Your task to perform on an android device: View the shopping cart on target.com. Add "macbook pro" to the cart on target.com Image 0: 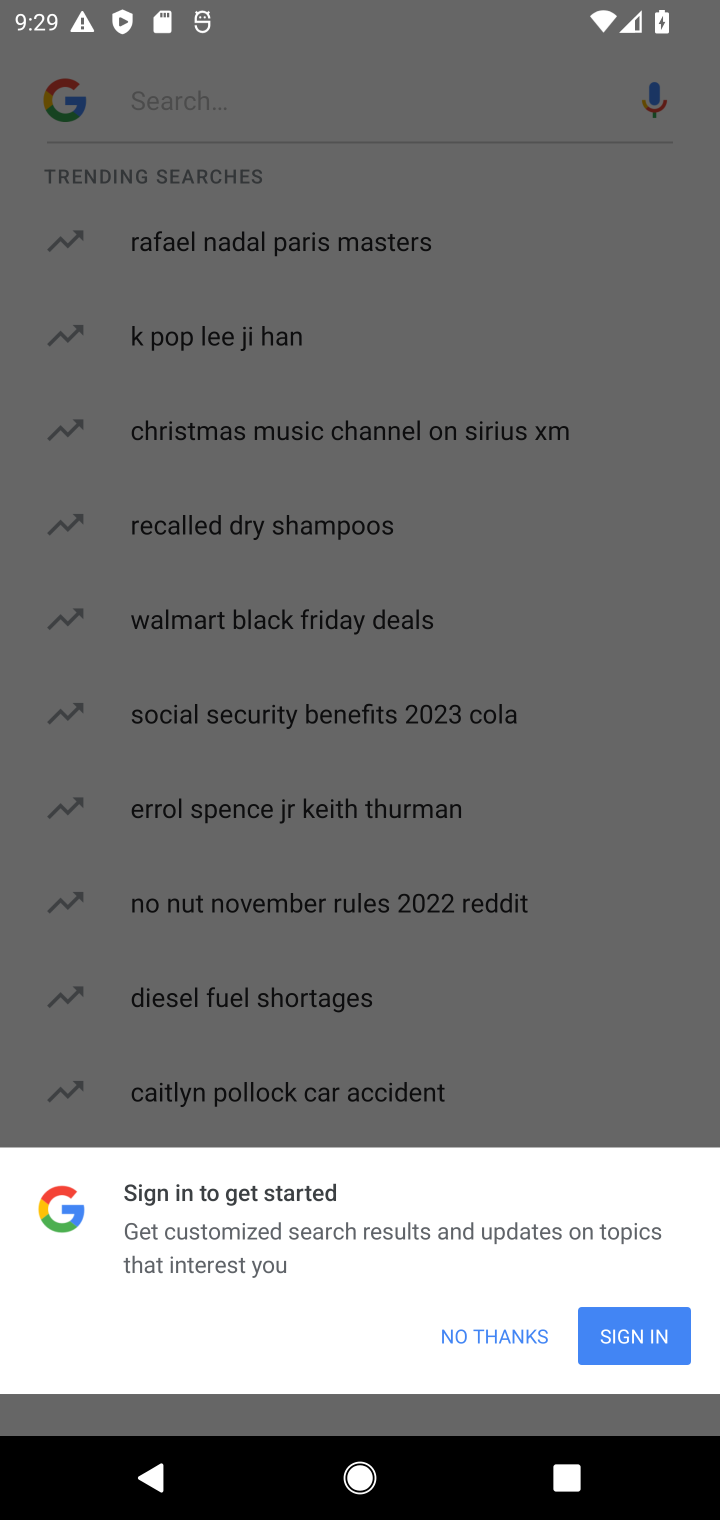
Step 0: press home button
Your task to perform on an android device: View the shopping cart on target.com. Add "macbook pro" to the cart on target.com Image 1: 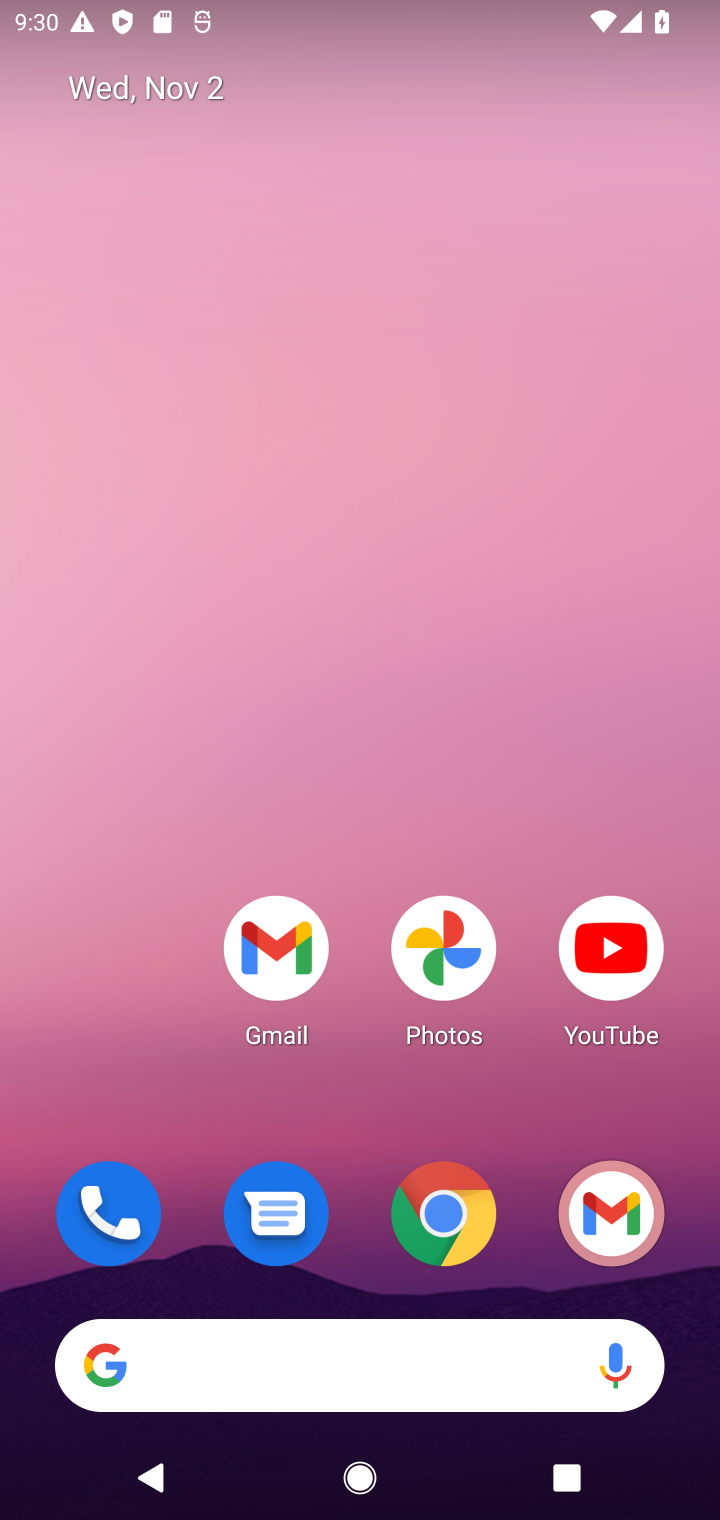
Step 1: click (435, 1225)
Your task to perform on an android device: View the shopping cart on target.com. Add "macbook pro" to the cart on target.com Image 2: 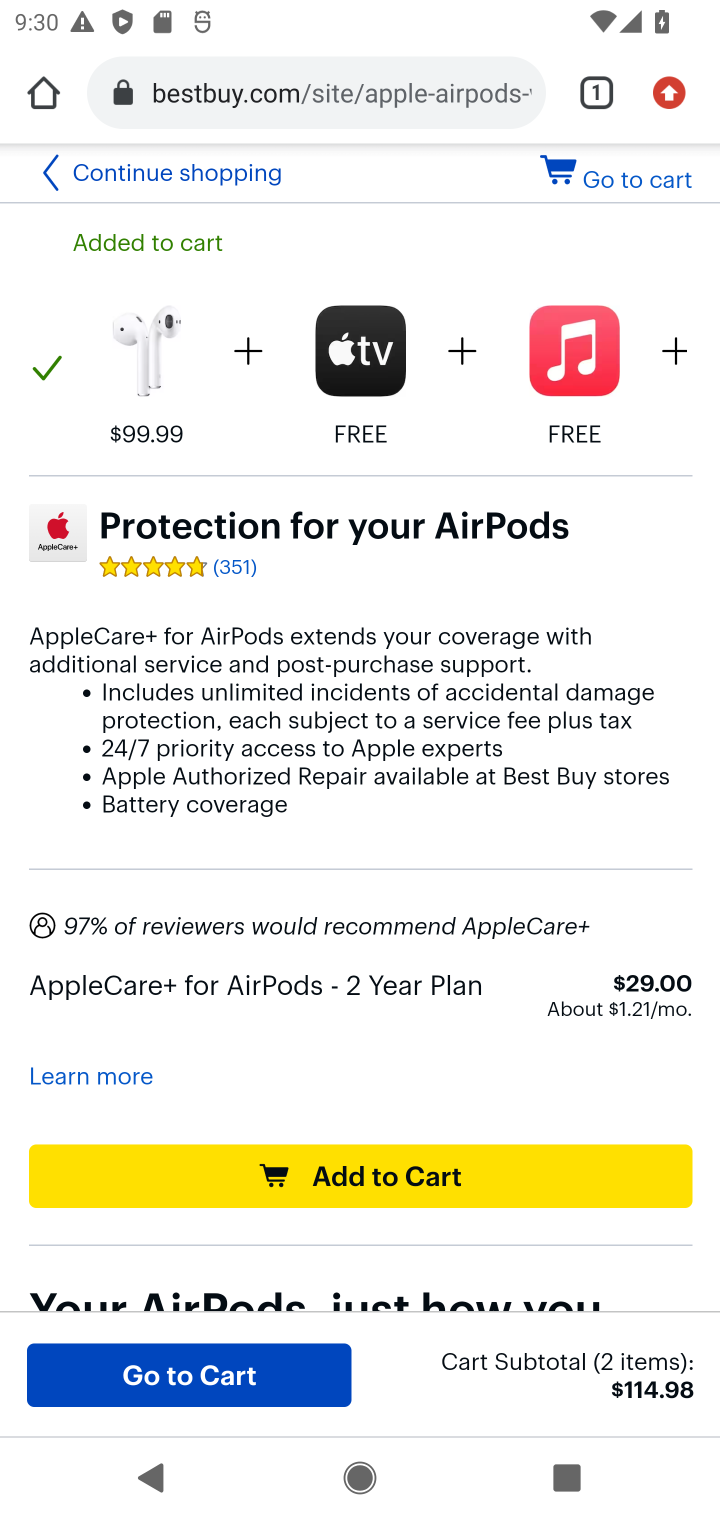
Step 2: click (331, 98)
Your task to perform on an android device: View the shopping cart on target.com. Add "macbook pro" to the cart on target.com Image 3: 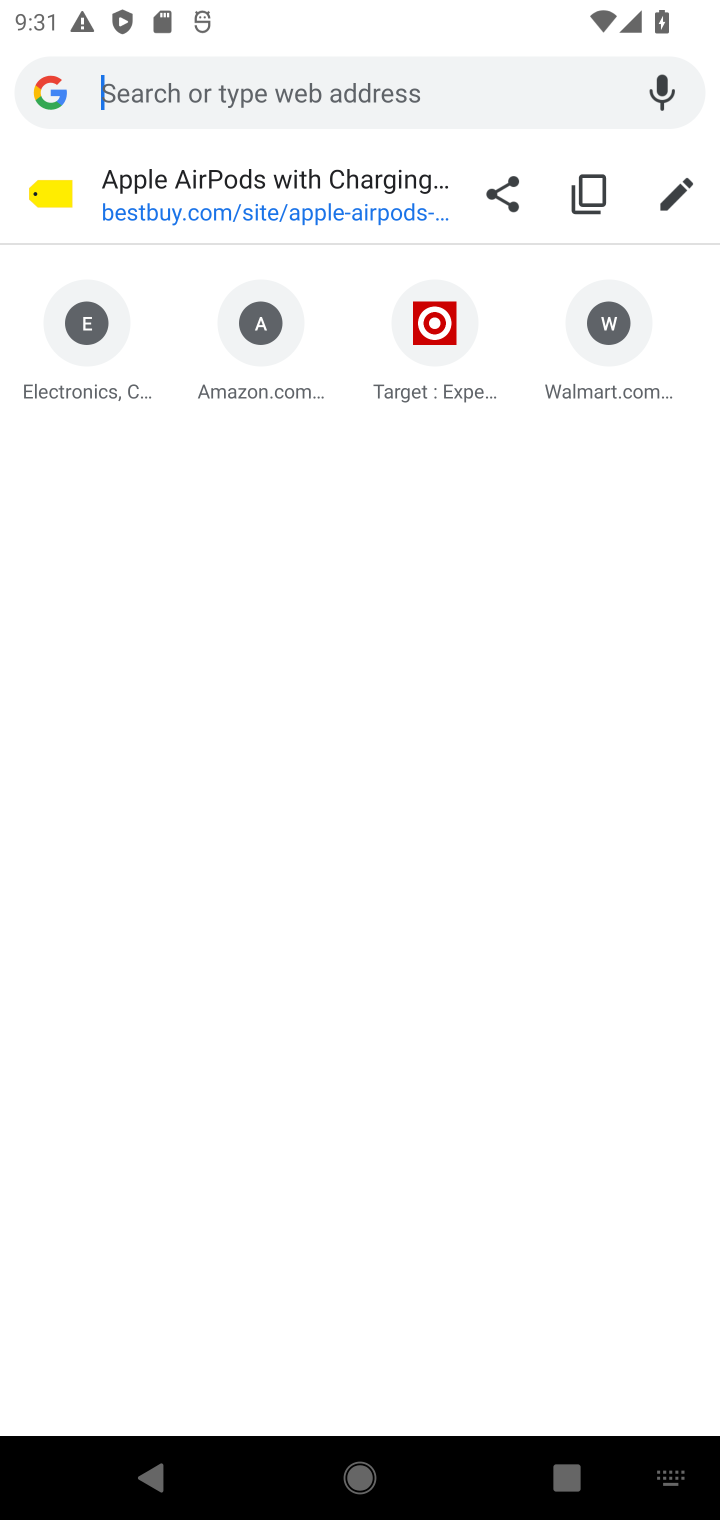
Step 3: click (431, 362)
Your task to perform on an android device: View the shopping cart on target.com. Add "macbook pro" to the cart on target.com Image 4: 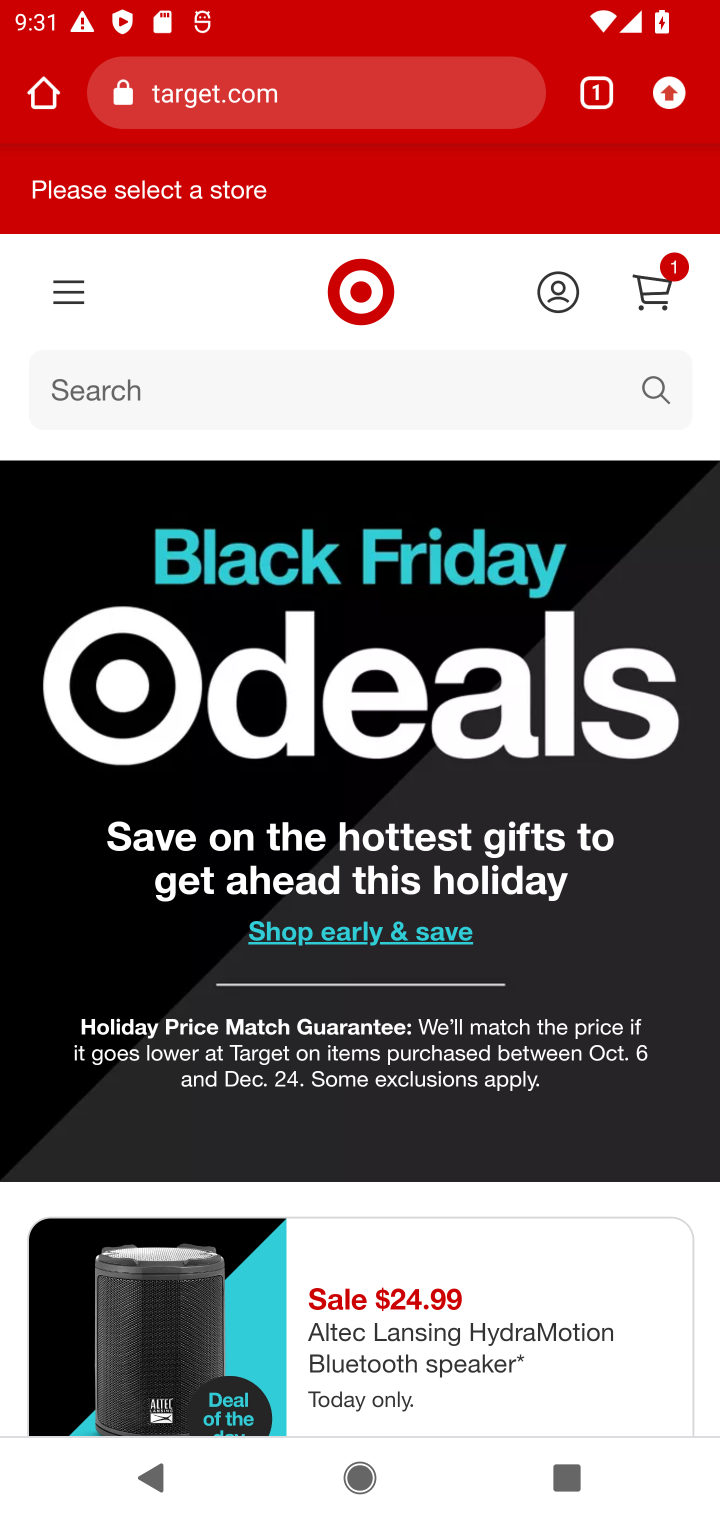
Step 4: click (653, 277)
Your task to perform on an android device: View the shopping cart on target.com. Add "macbook pro" to the cart on target.com Image 5: 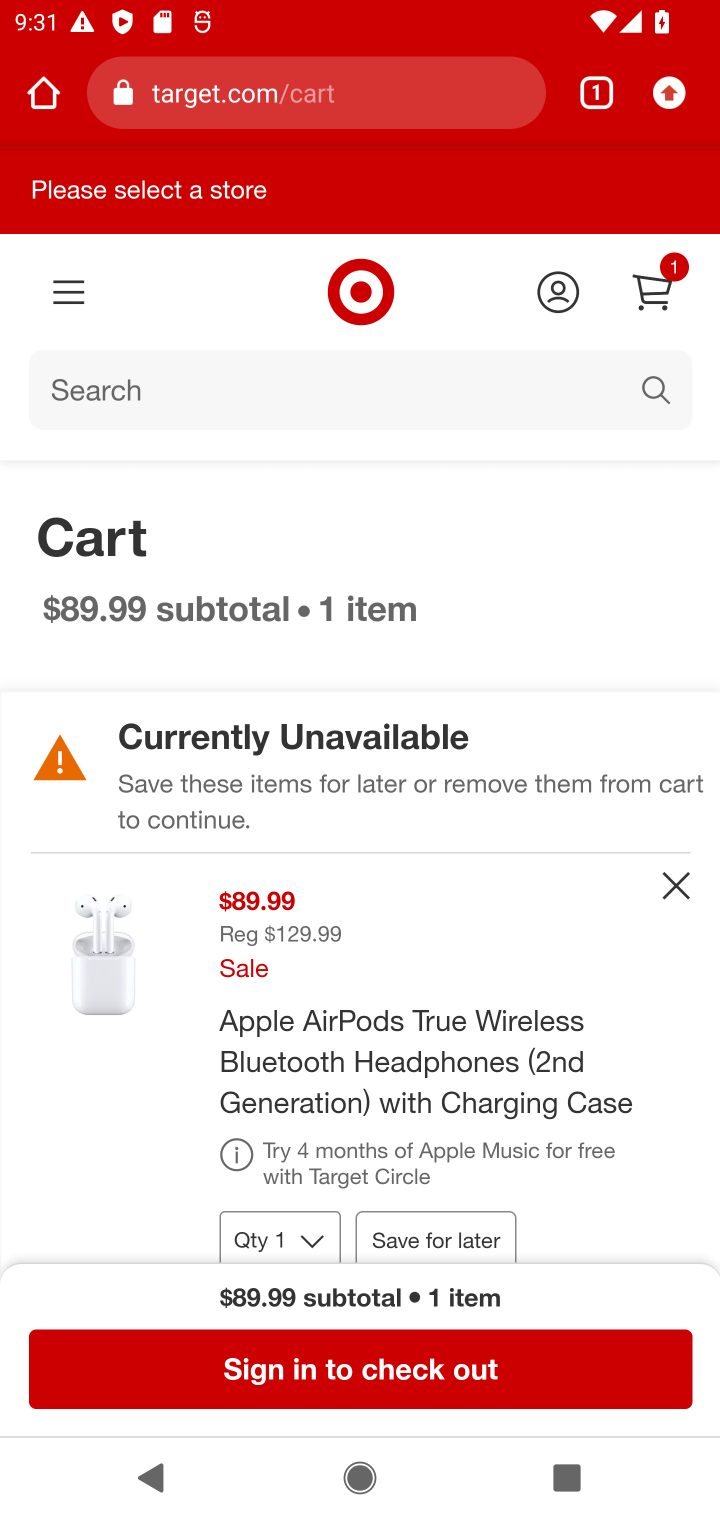
Step 5: click (675, 378)
Your task to perform on an android device: View the shopping cart on target.com. Add "macbook pro" to the cart on target.com Image 6: 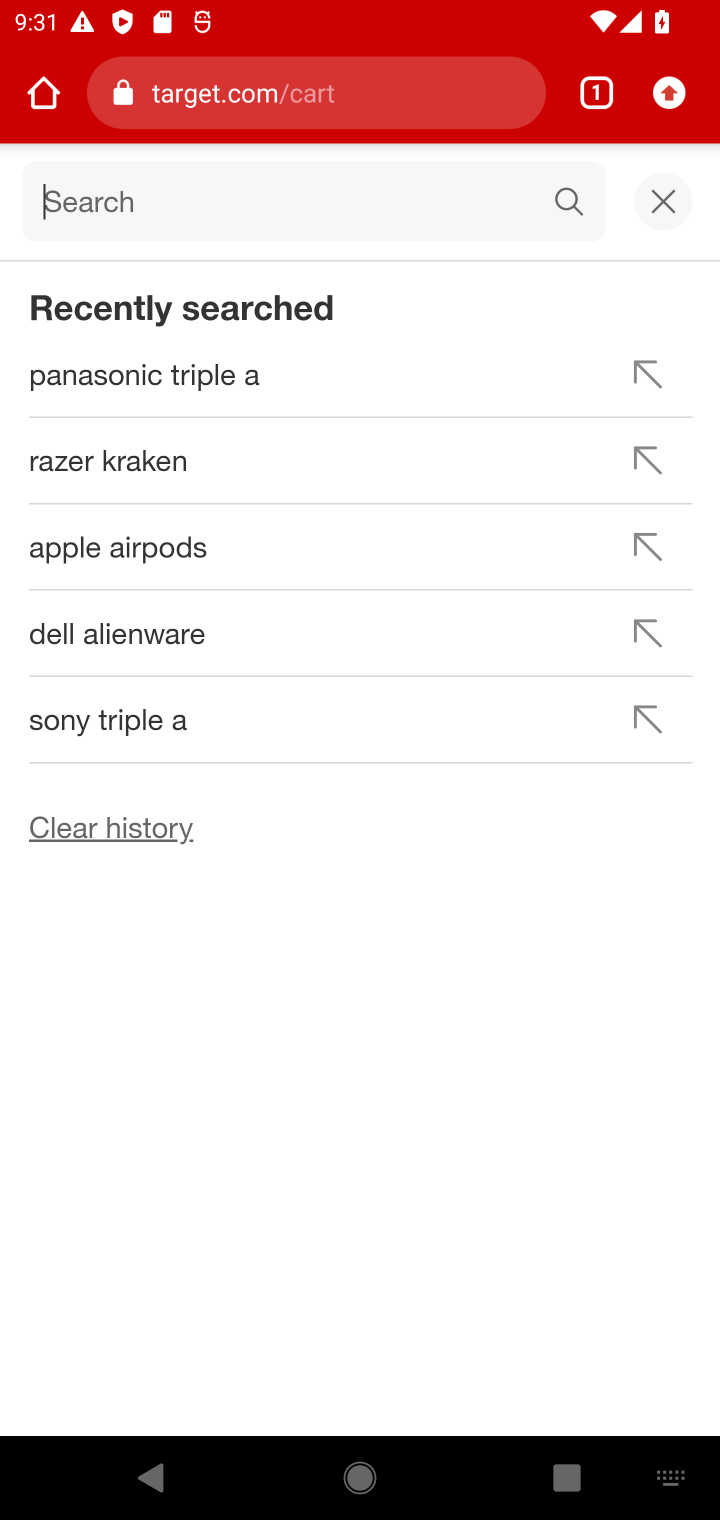
Step 6: type "macbook pro"
Your task to perform on an android device: View the shopping cart on target.com. Add "macbook pro" to the cart on target.com Image 7: 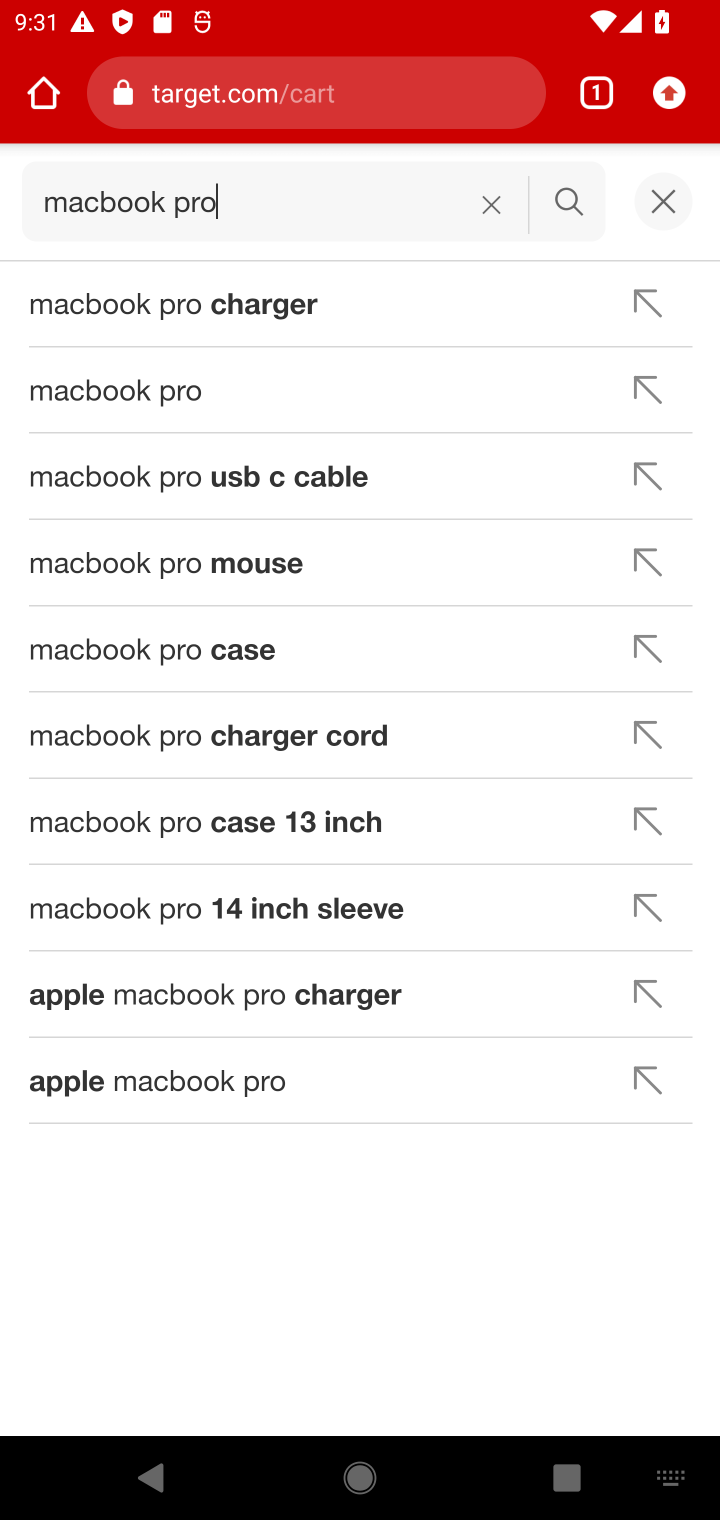
Step 7: click (118, 398)
Your task to perform on an android device: View the shopping cart on target.com. Add "macbook pro" to the cart on target.com Image 8: 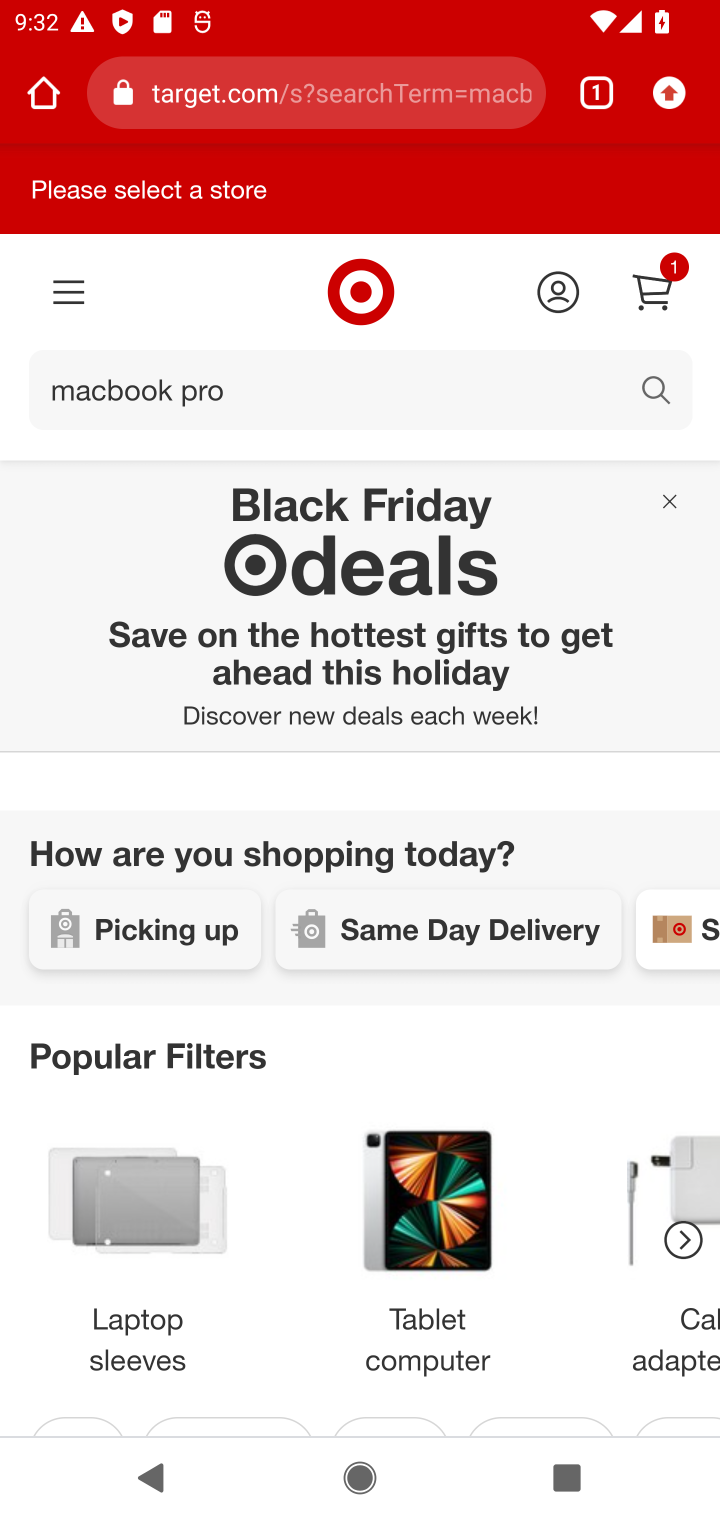
Step 8: task complete